Your task to perform on an android device: Go to display settings Image 0: 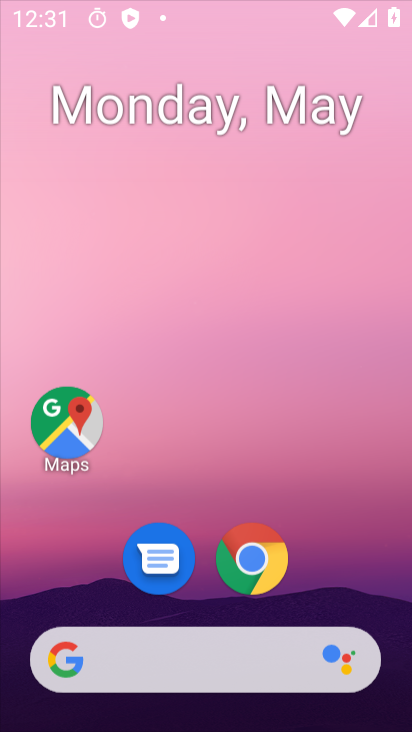
Step 0: press home button
Your task to perform on an android device: Go to display settings Image 1: 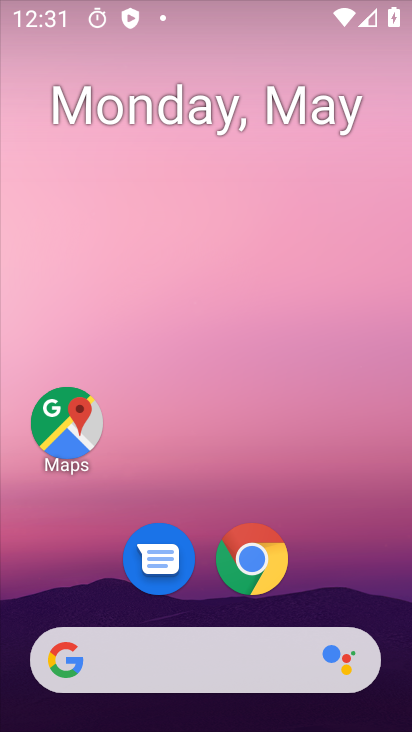
Step 1: drag from (223, 630) to (241, 36)
Your task to perform on an android device: Go to display settings Image 2: 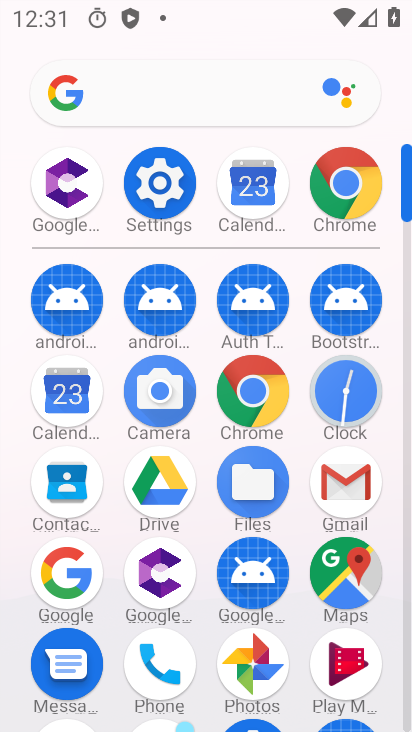
Step 2: click (163, 161)
Your task to perform on an android device: Go to display settings Image 3: 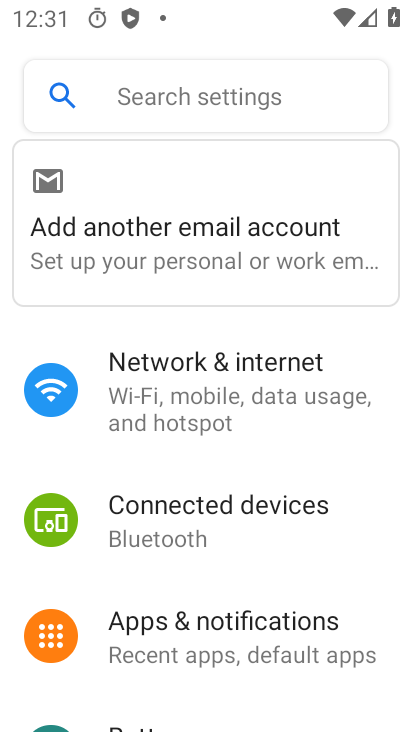
Step 3: drag from (221, 629) to (243, 271)
Your task to perform on an android device: Go to display settings Image 4: 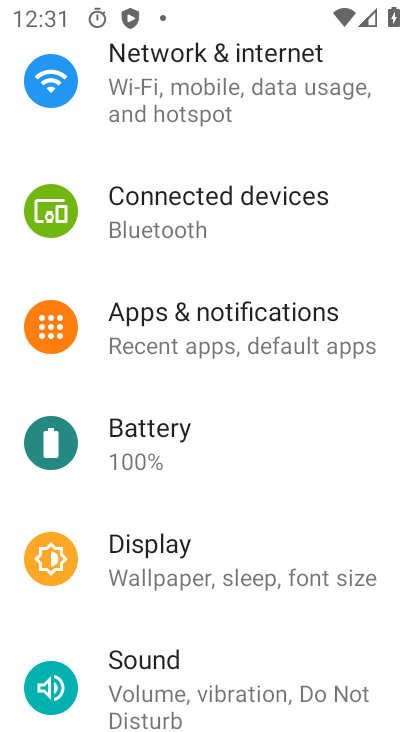
Step 4: click (215, 549)
Your task to perform on an android device: Go to display settings Image 5: 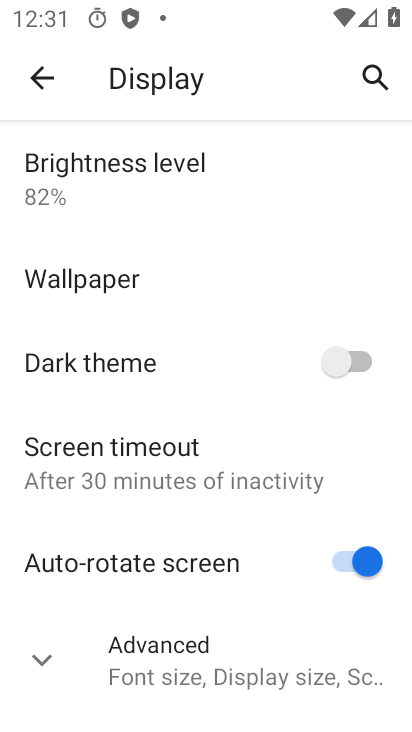
Step 5: task complete